Your task to perform on an android device: What's a good restaurant near me? Image 0: 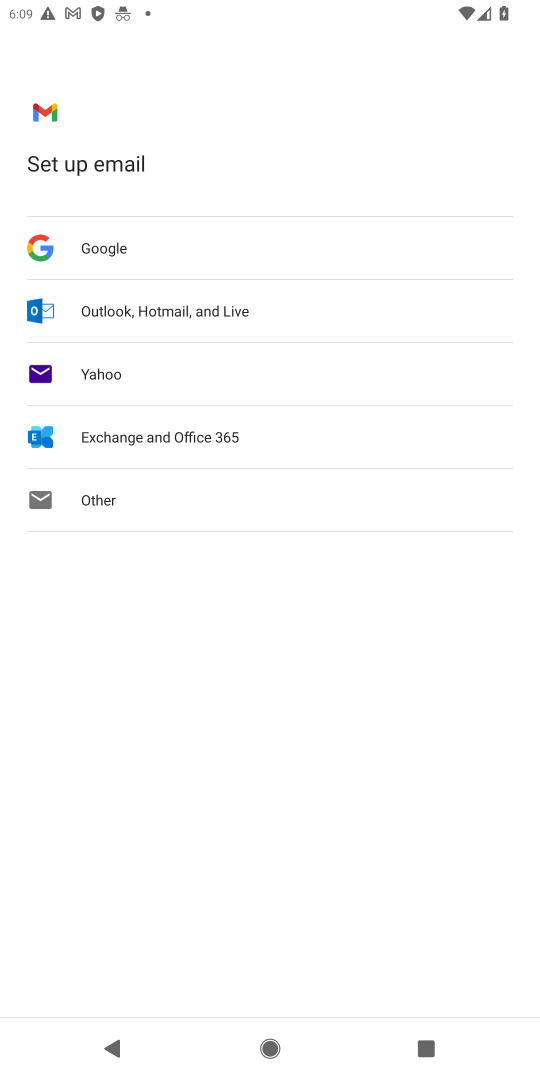
Step 0: press home button
Your task to perform on an android device: What's a good restaurant near me? Image 1: 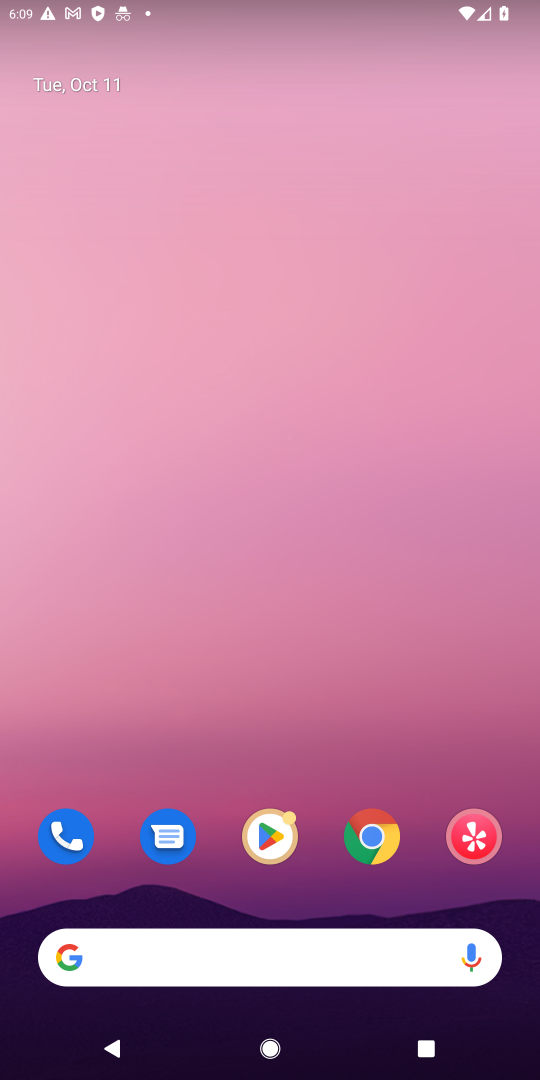
Step 1: click (374, 831)
Your task to perform on an android device: What's a good restaurant near me? Image 2: 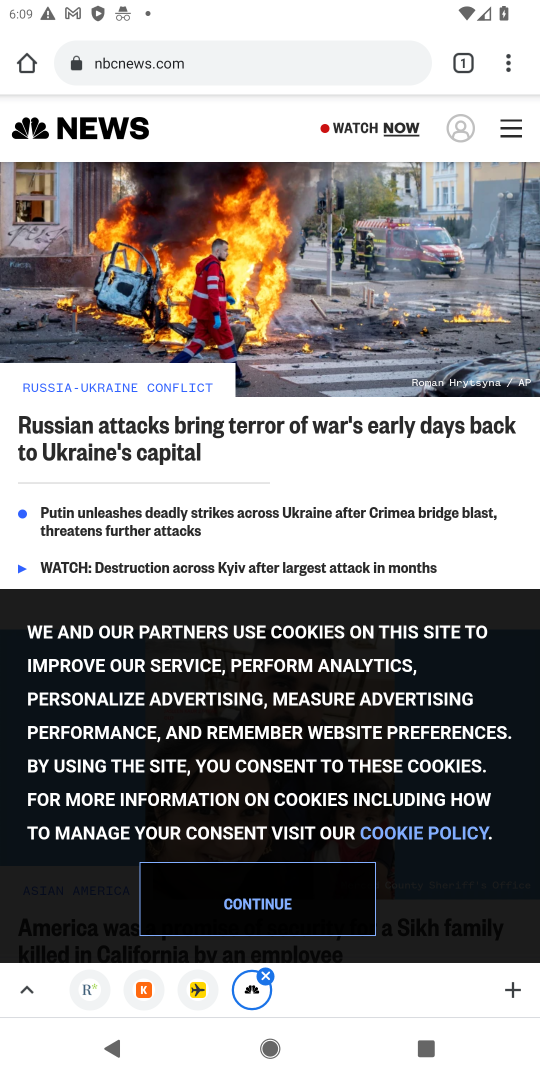
Step 2: click (186, 45)
Your task to perform on an android device: What's a good restaurant near me? Image 3: 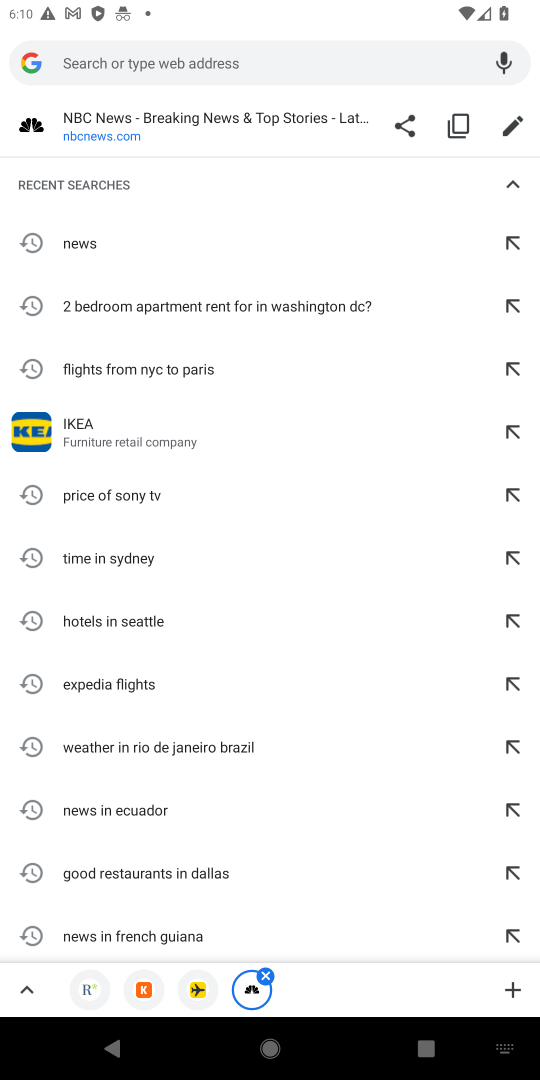
Step 3: type "good restaurant near me?"
Your task to perform on an android device: What's a good restaurant near me? Image 4: 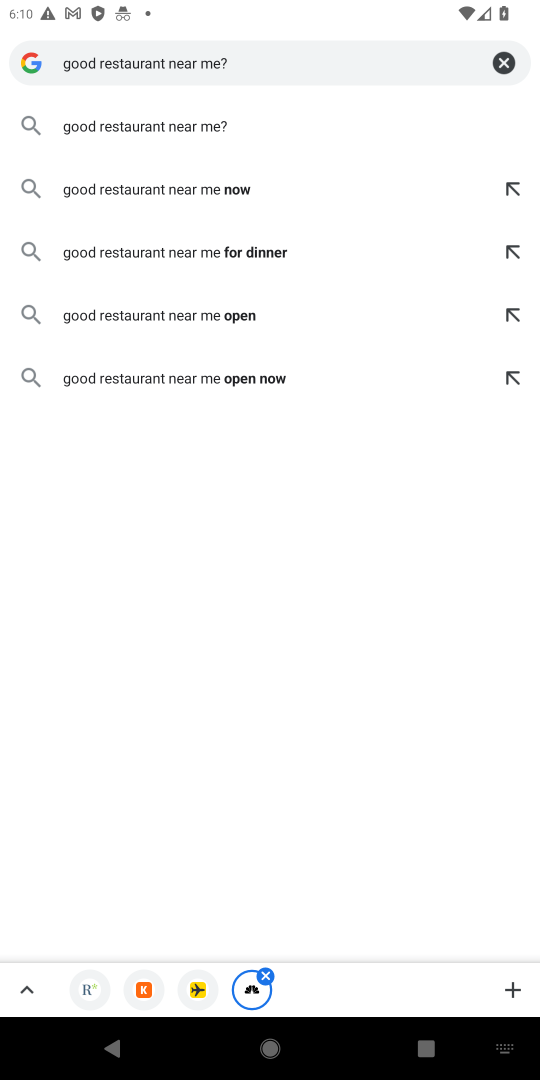
Step 4: click (133, 122)
Your task to perform on an android device: What's a good restaurant near me? Image 5: 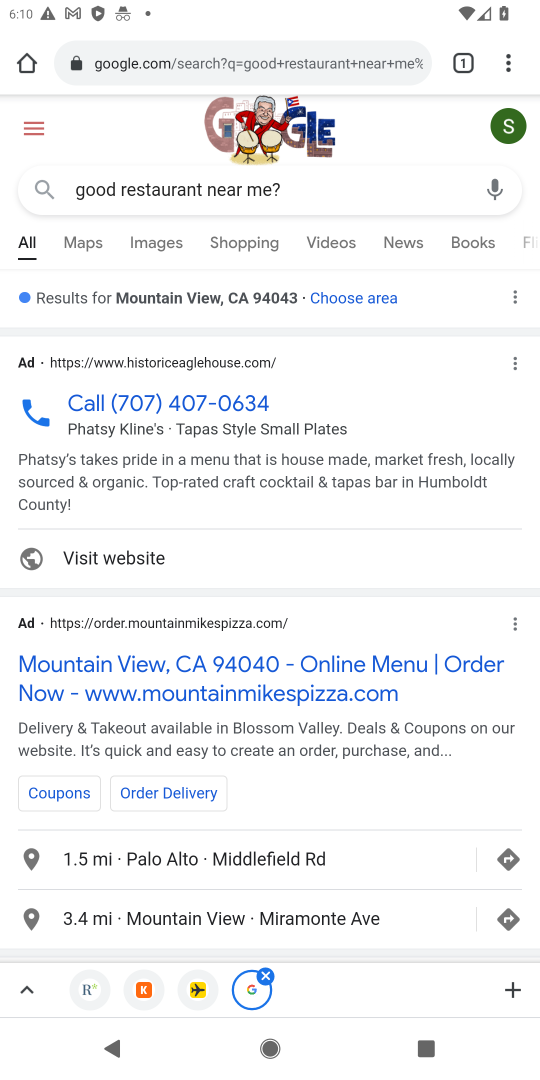
Step 5: drag from (328, 622) to (313, 352)
Your task to perform on an android device: What's a good restaurant near me? Image 6: 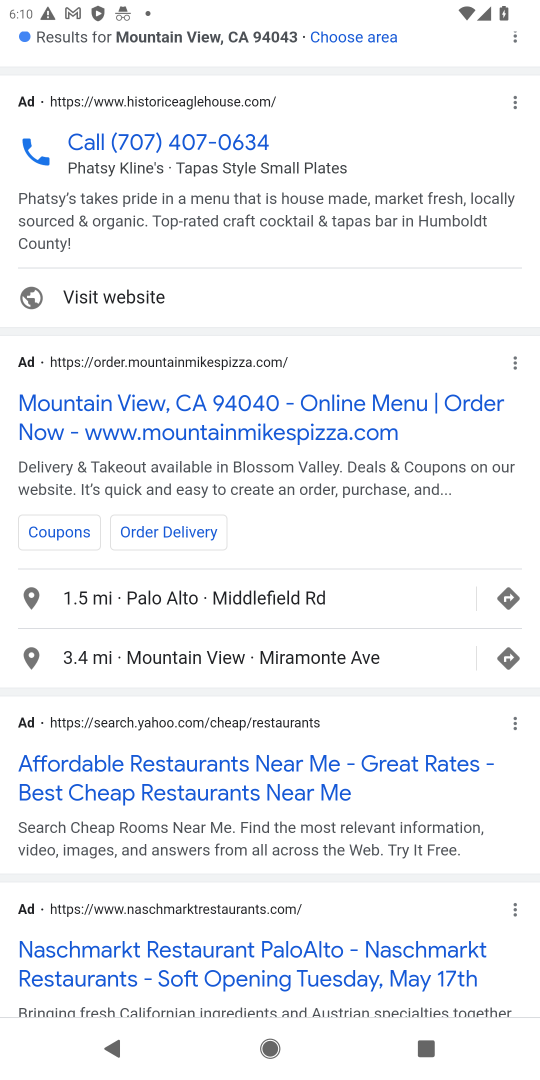
Step 6: drag from (253, 780) to (235, 257)
Your task to perform on an android device: What's a good restaurant near me? Image 7: 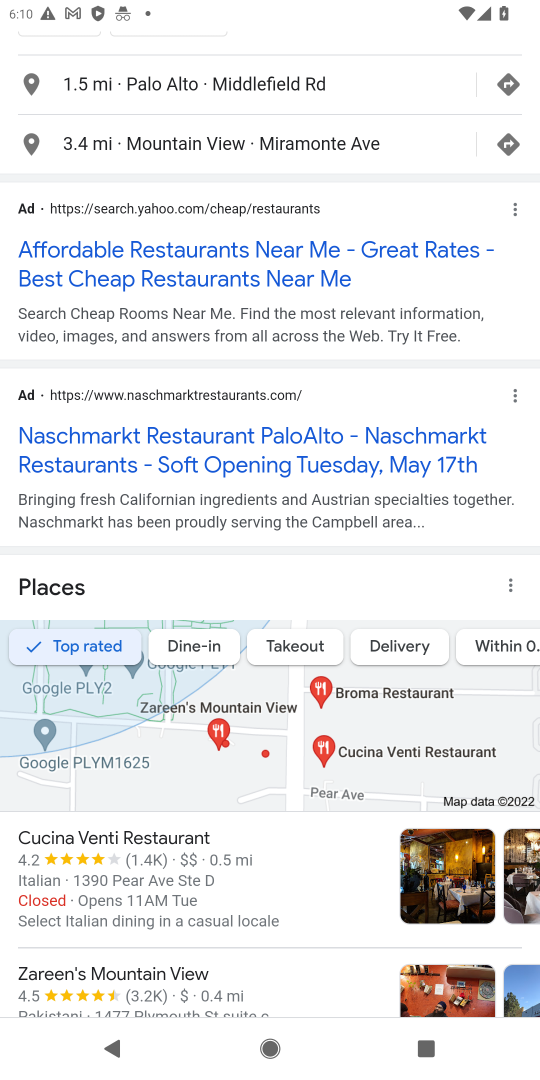
Step 7: click (178, 452)
Your task to perform on an android device: What's a good restaurant near me? Image 8: 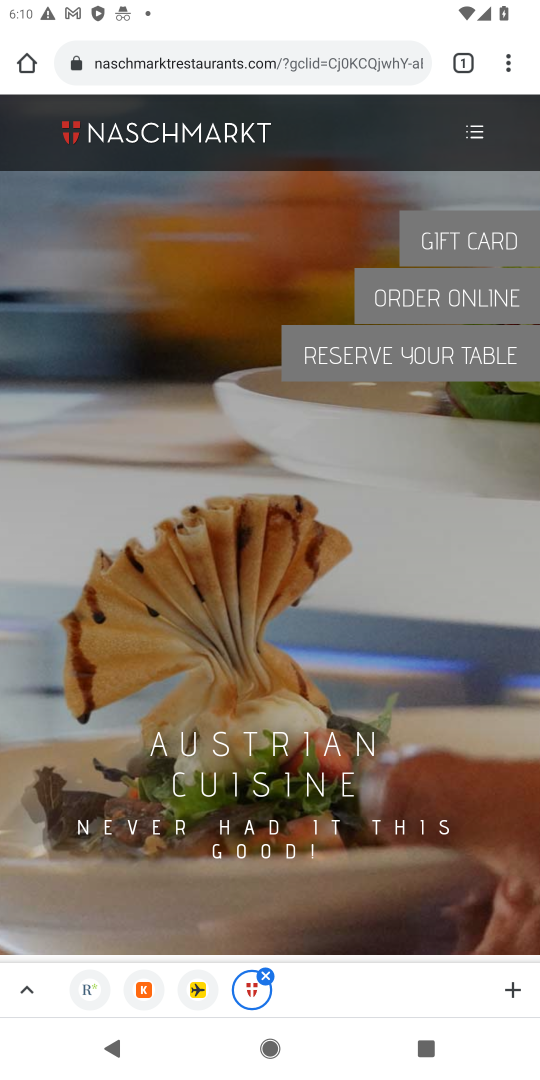
Step 8: task complete